Your task to perform on an android device: see tabs open on other devices in the chrome app Image 0: 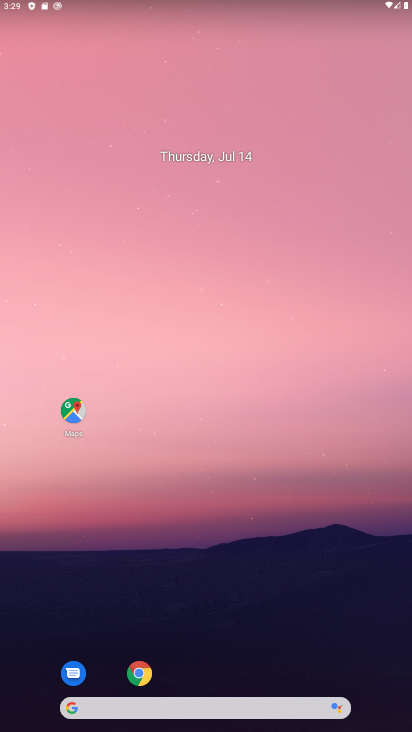
Step 0: press home button
Your task to perform on an android device: see tabs open on other devices in the chrome app Image 1: 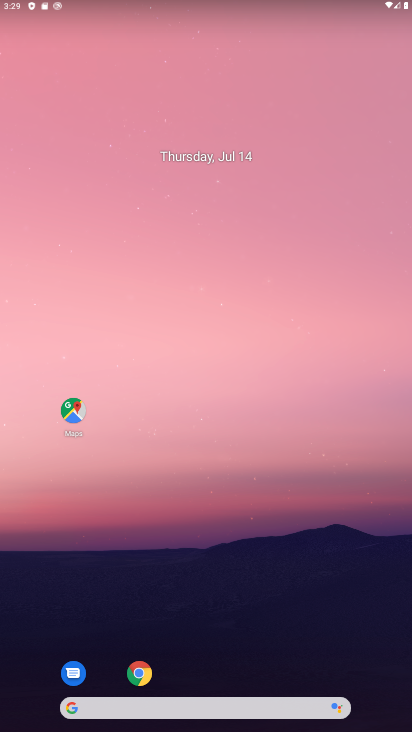
Step 1: click (246, 20)
Your task to perform on an android device: see tabs open on other devices in the chrome app Image 2: 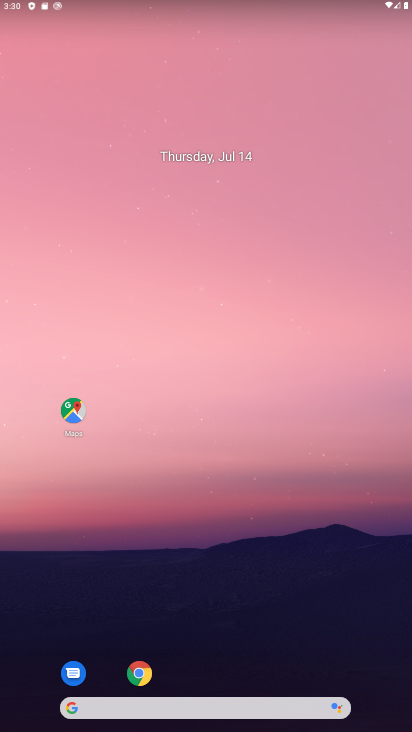
Step 2: drag from (222, 664) to (268, 53)
Your task to perform on an android device: see tabs open on other devices in the chrome app Image 3: 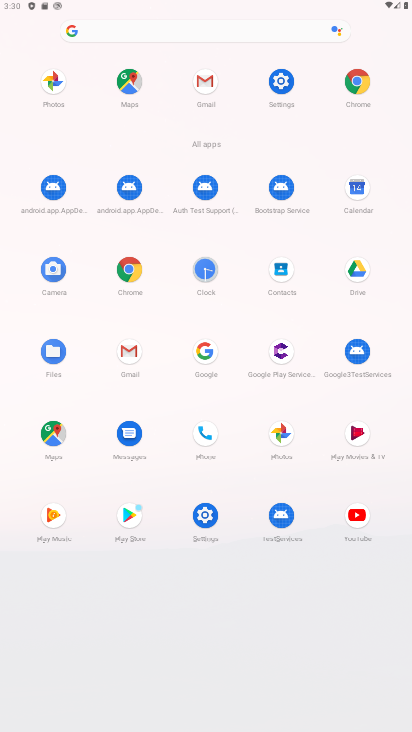
Step 3: click (356, 78)
Your task to perform on an android device: see tabs open on other devices in the chrome app Image 4: 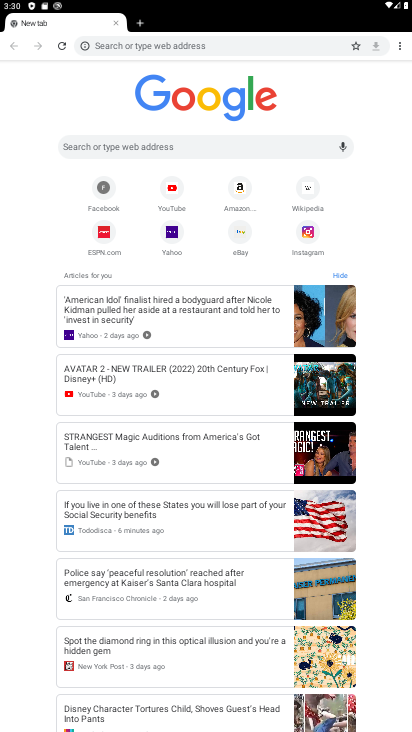
Step 4: click (400, 47)
Your task to perform on an android device: see tabs open on other devices in the chrome app Image 5: 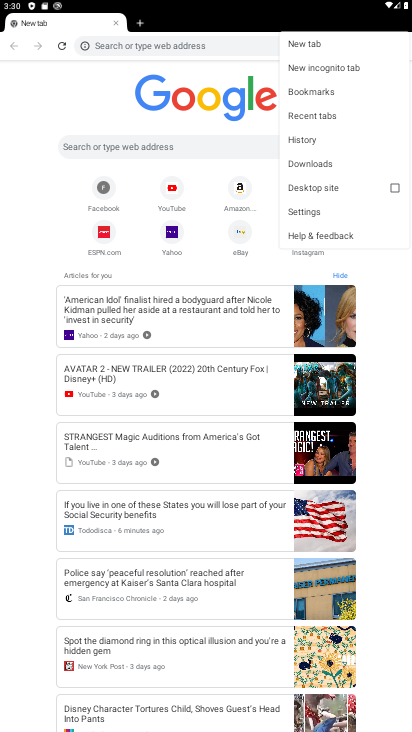
Step 5: click (323, 116)
Your task to perform on an android device: see tabs open on other devices in the chrome app Image 6: 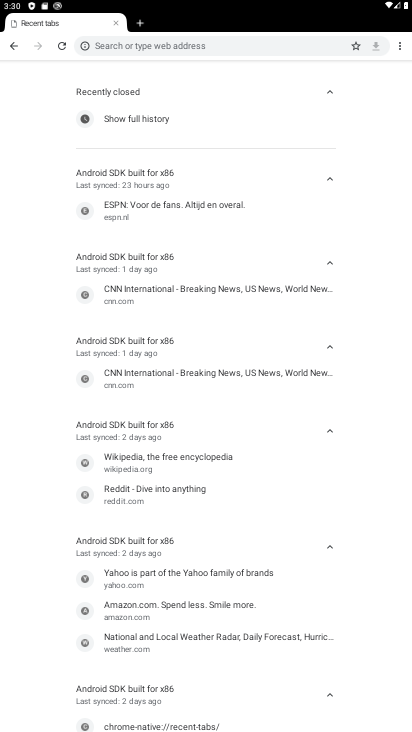
Step 6: task complete